Your task to perform on an android device: Open Google Chrome Image 0: 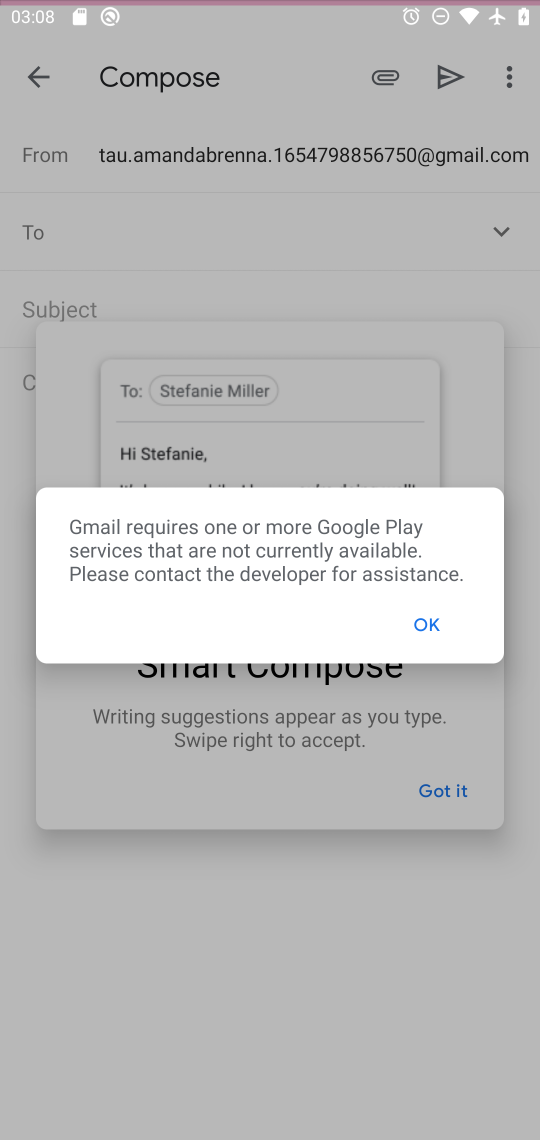
Step 0: click (446, 82)
Your task to perform on an android device: Open Google Chrome Image 1: 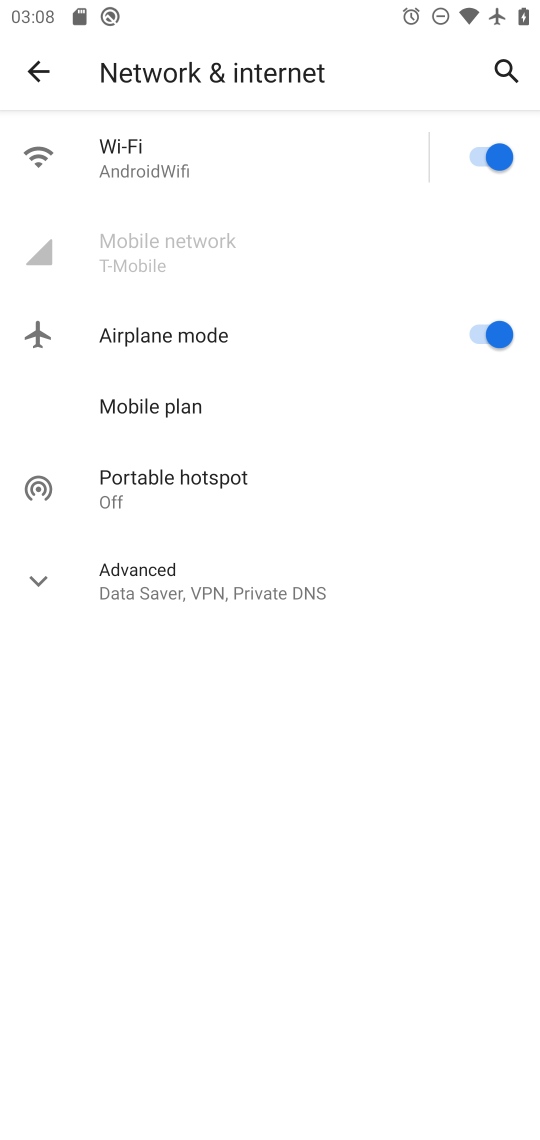
Step 1: press home button
Your task to perform on an android device: Open Google Chrome Image 2: 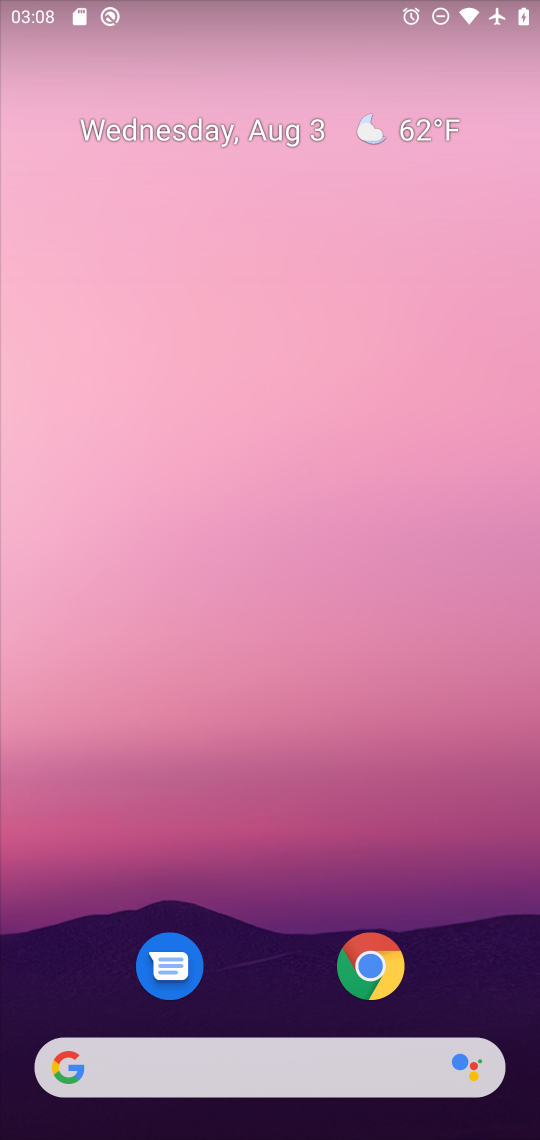
Step 2: click (388, 964)
Your task to perform on an android device: Open Google Chrome Image 3: 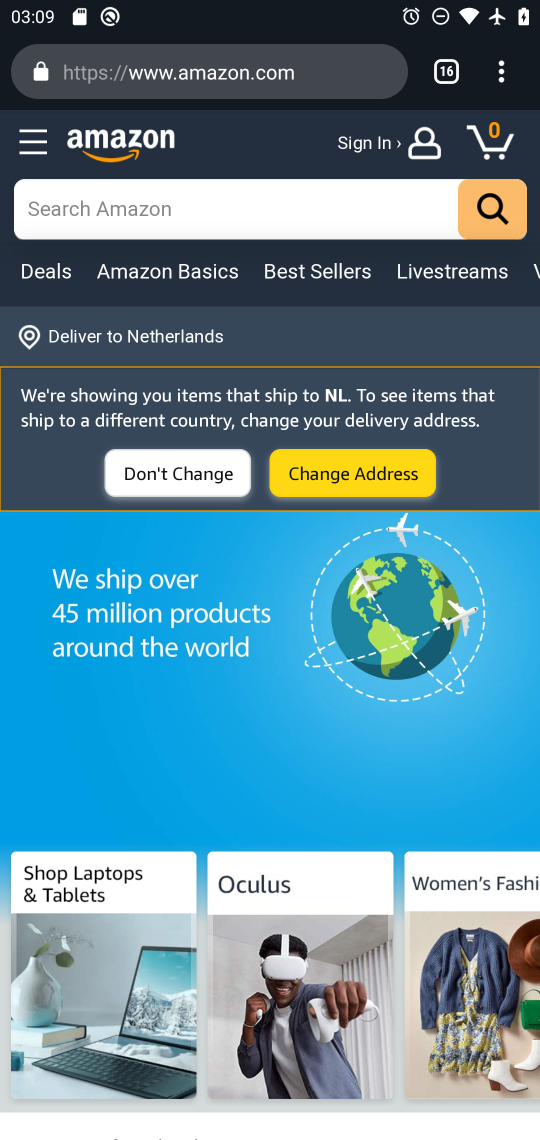
Step 3: click (456, 63)
Your task to perform on an android device: Open Google Chrome Image 4: 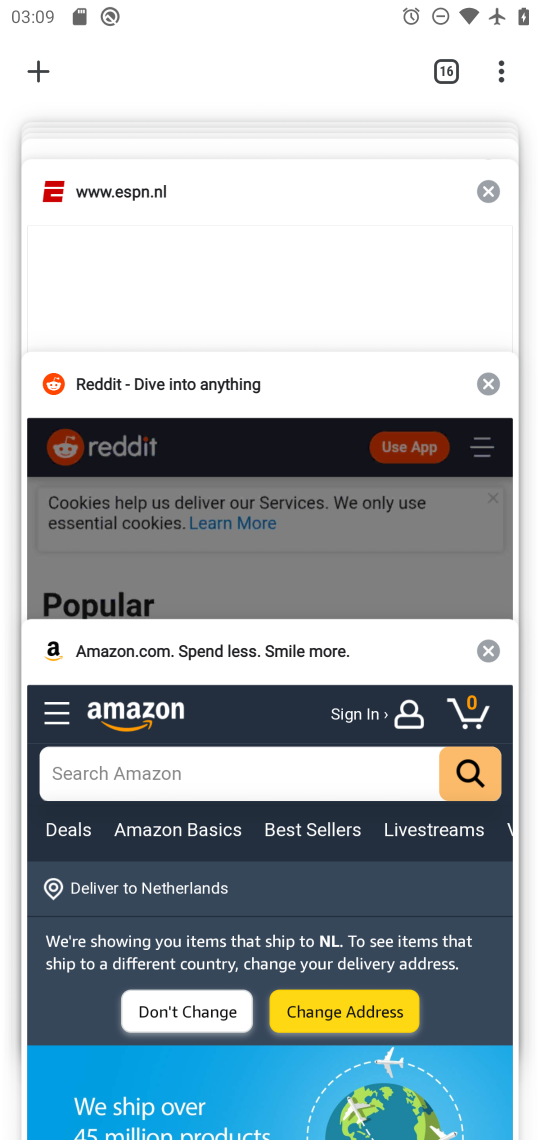
Step 4: click (44, 67)
Your task to perform on an android device: Open Google Chrome Image 5: 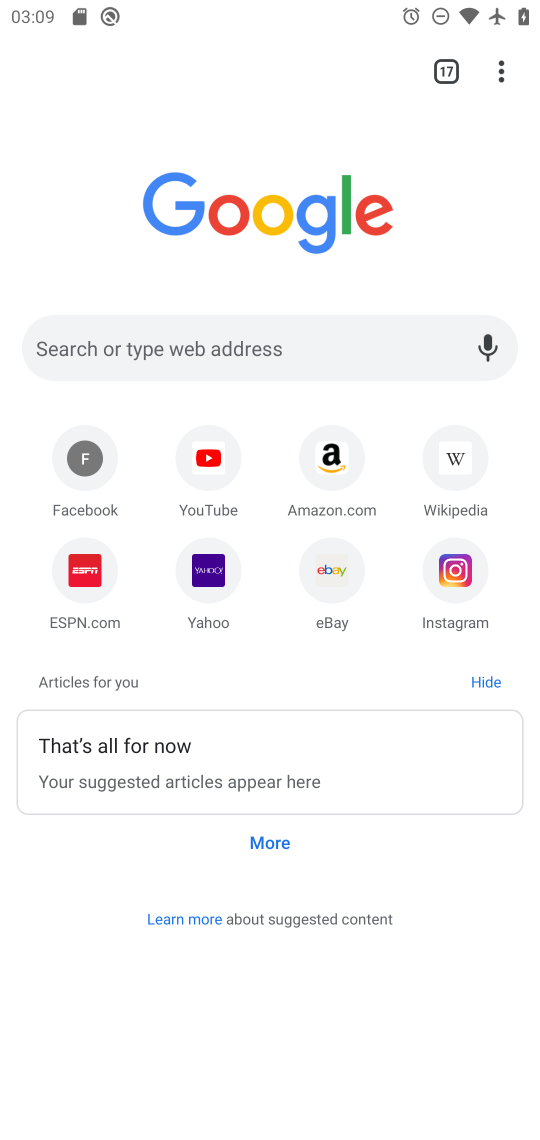
Step 5: task complete